Your task to perform on an android device: Open calendar and show me the fourth week of next month Image 0: 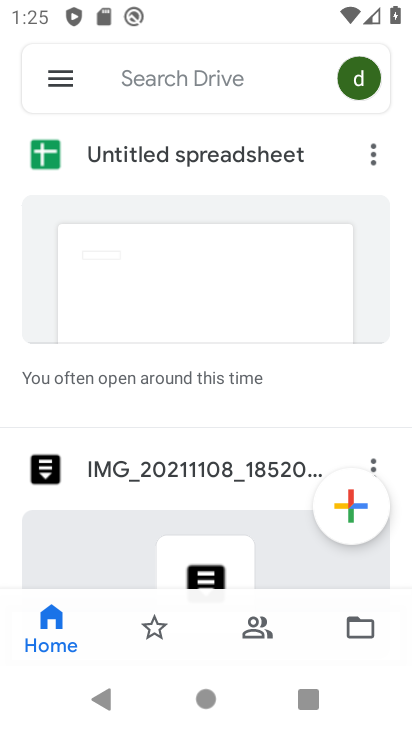
Step 0: press home button
Your task to perform on an android device: Open calendar and show me the fourth week of next month Image 1: 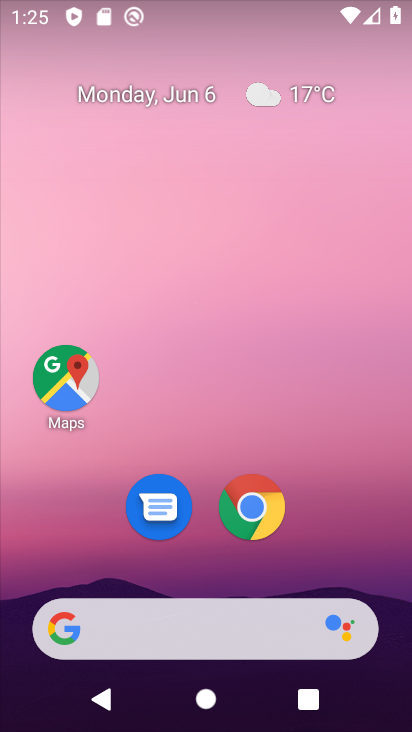
Step 1: drag from (208, 665) to (196, 175)
Your task to perform on an android device: Open calendar and show me the fourth week of next month Image 2: 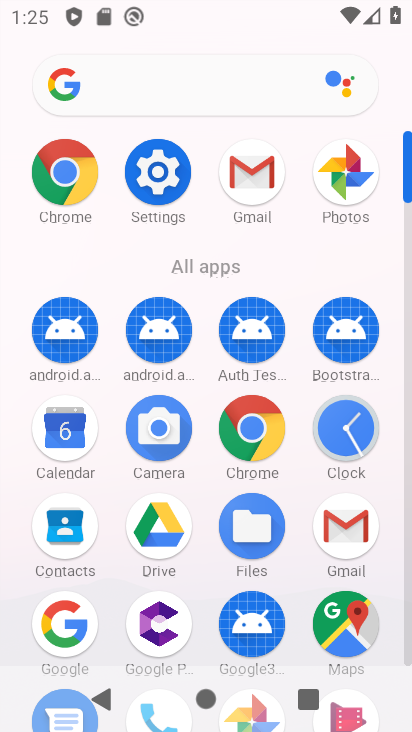
Step 2: click (75, 438)
Your task to perform on an android device: Open calendar and show me the fourth week of next month Image 3: 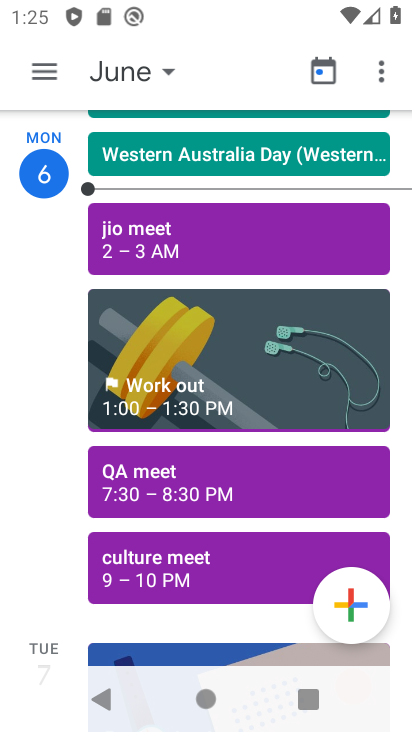
Step 3: click (25, 69)
Your task to perform on an android device: Open calendar and show me the fourth week of next month Image 4: 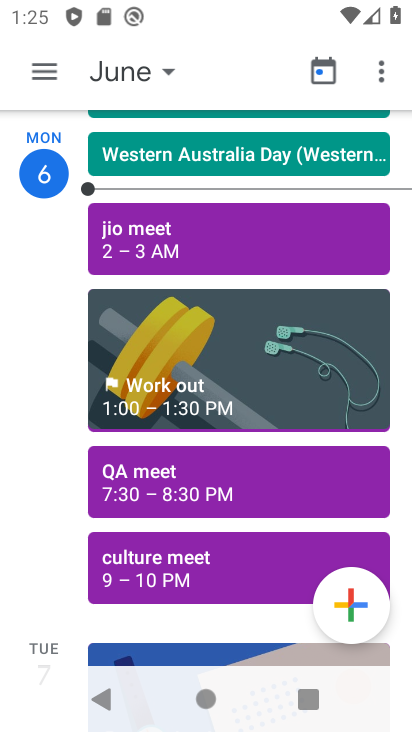
Step 4: click (61, 60)
Your task to perform on an android device: Open calendar and show me the fourth week of next month Image 5: 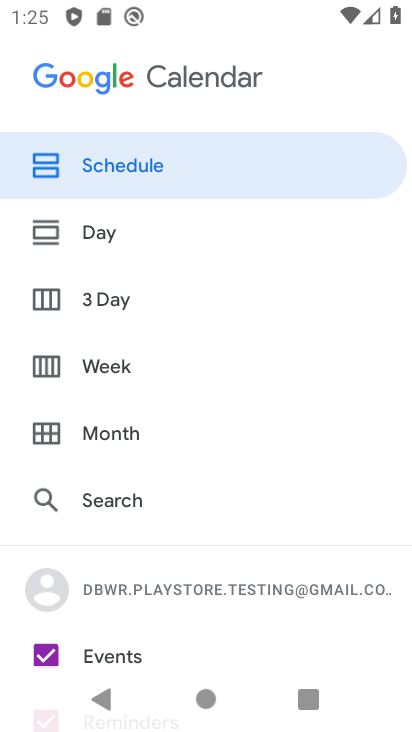
Step 5: click (133, 448)
Your task to perform on an android device: Open calendar and show me the fourth week of next month Image 6: 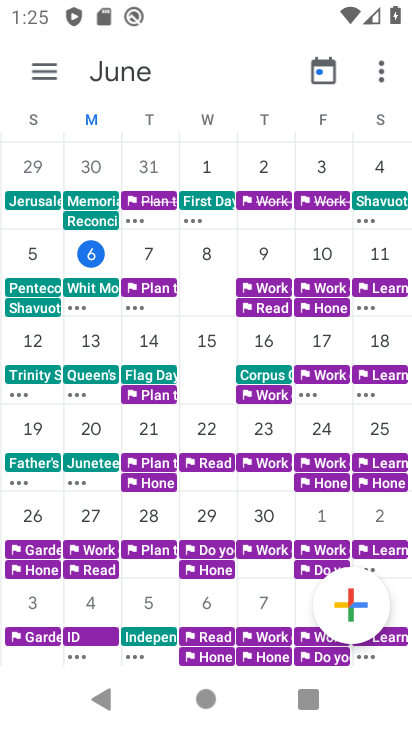
Step 6: drag from (385, 516) to (0, 454)
Your task to perform on an android device: Open calendar and show me the fourth week of next month Image 7: 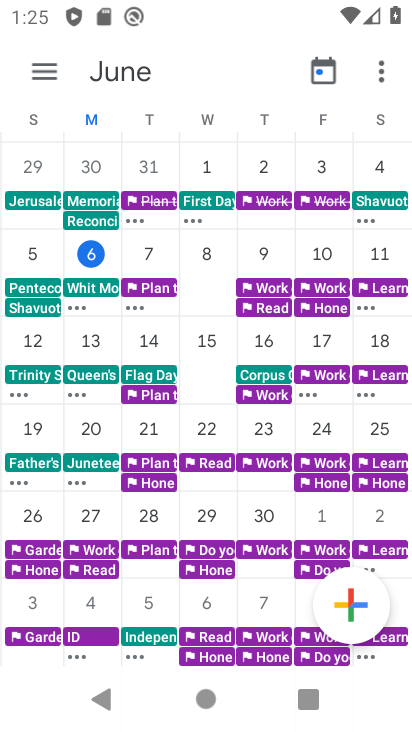
Step 7: click (86, 519)
Your task to perform on an android device: Open calendar and show me the fourth week of next month Image 8: 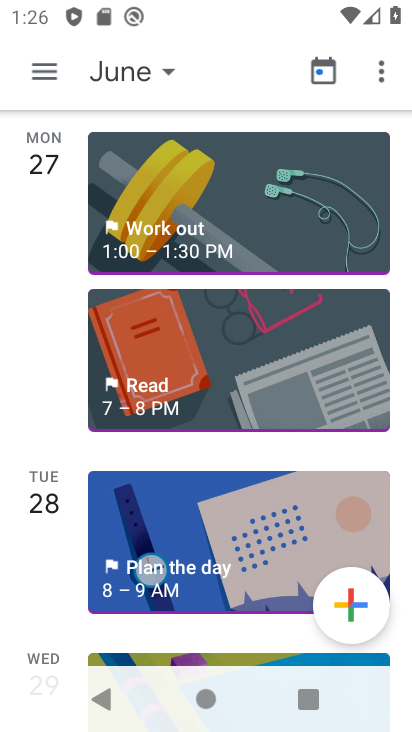
Step 8: task complete